Your task to perform on an android device: turn off location history Image 0: 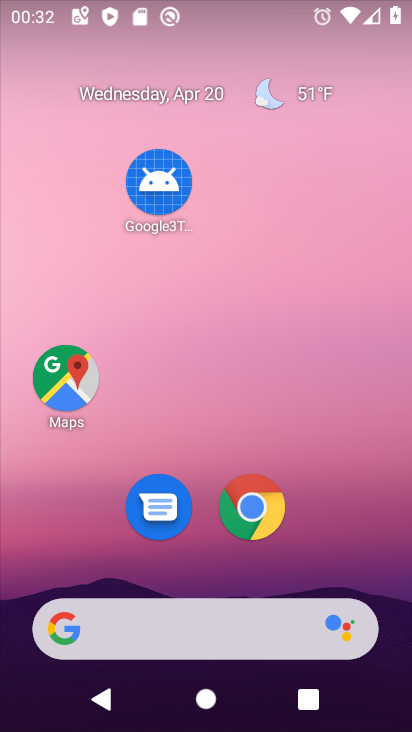
Step 0: drag from (201, 569) to (235, 7)
Your task to perform on an android device: turn off location history Image 1: 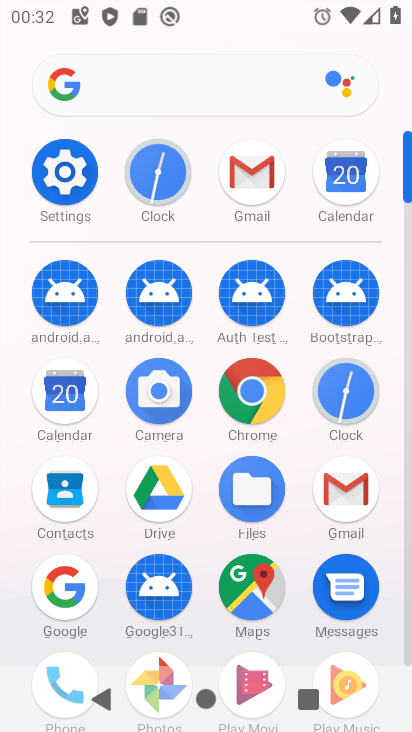
Step 1: click (246, 576)
Your task to perform on an android device: turn off location history Image 2: 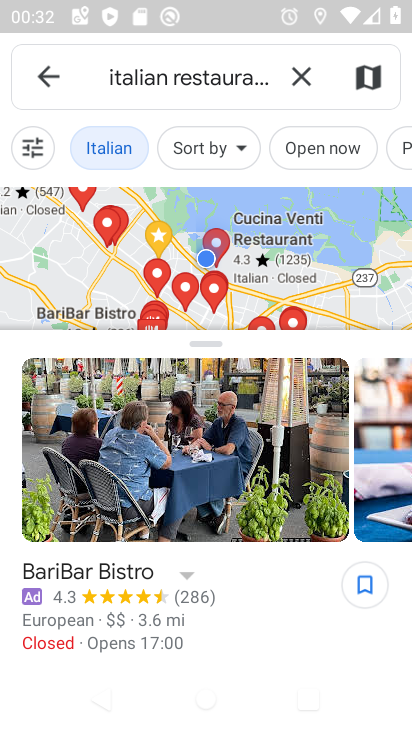
Step 2: click (39, 70)
Your task to perform on an android device: turn off location history Image 3: 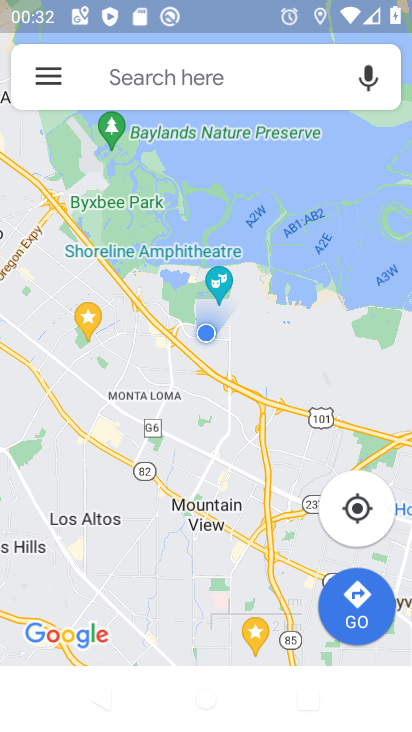
Step 3: click (43, 71)
Your task to perform on an android device: turn off location history Image 4: 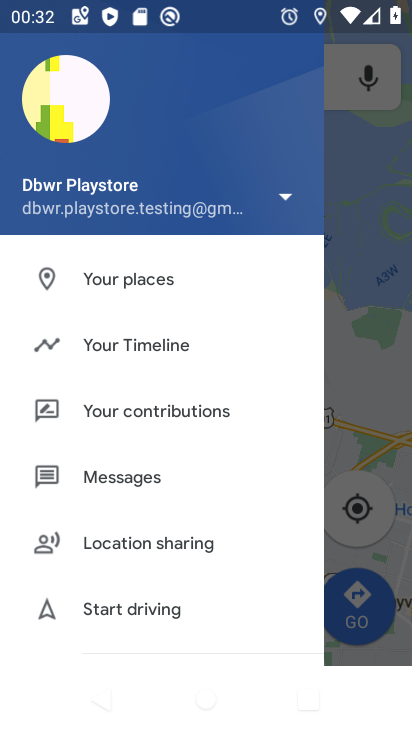
Step 4: drag from (160, 573) to (197, 173)
Your task to perform on an android device: turn off location history Image 5: 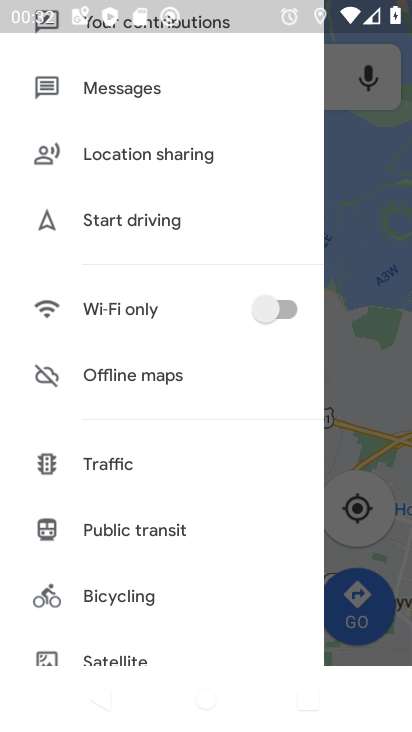
Step 5: drag from (199, 176) to (181, 647)
Your task to perform on an android device: turn off location history Image 6: 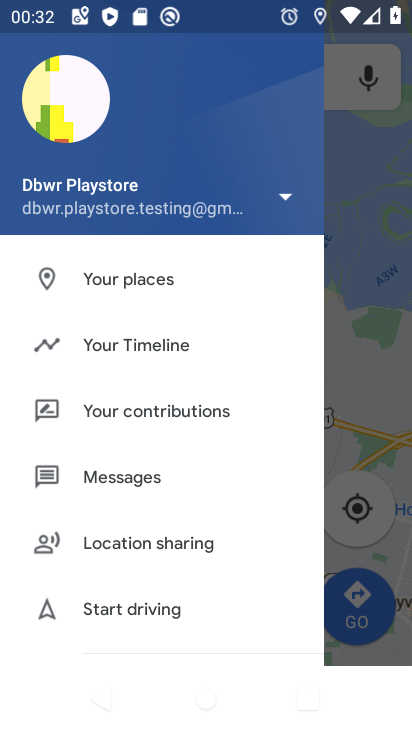
Step 6: click (129, 341)
Your task to perform on an android device: turn off location history Image 7: 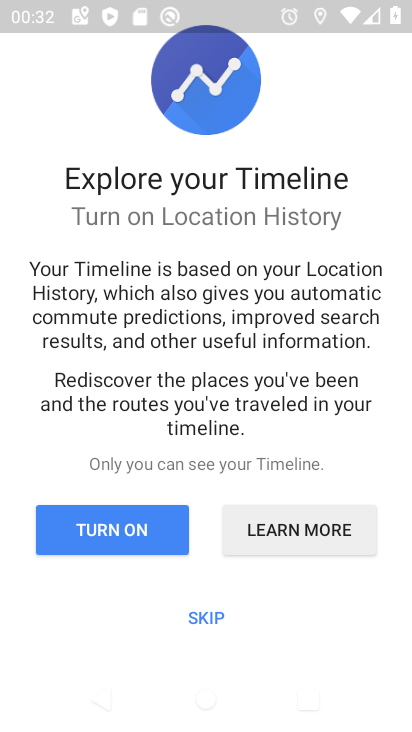
Step 7: click (147, 538)
Your task to perform on an android device: turn off location history Image 8: 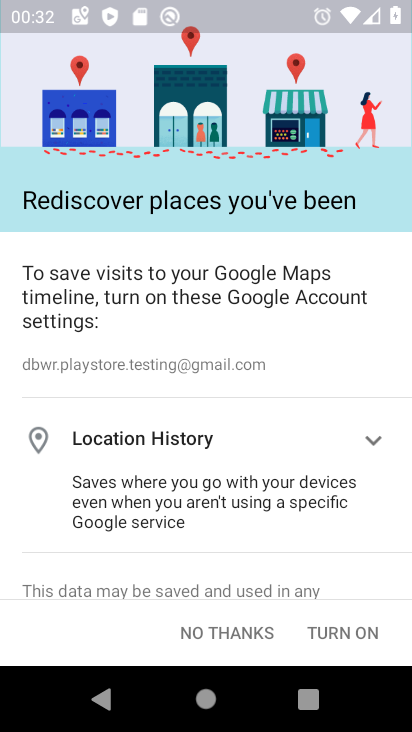
Step 8: click (330, 639)
Your task to perform on an android device: turn off location history Image 9: 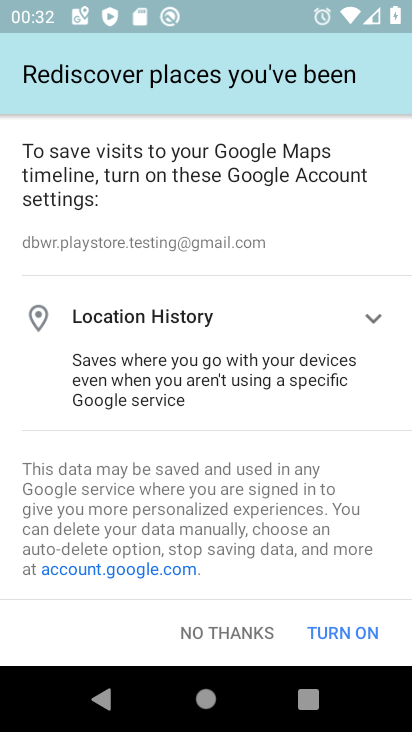
Step 9: click (331, 640)
Your task to perform on an android device: turn off location history Image 10: 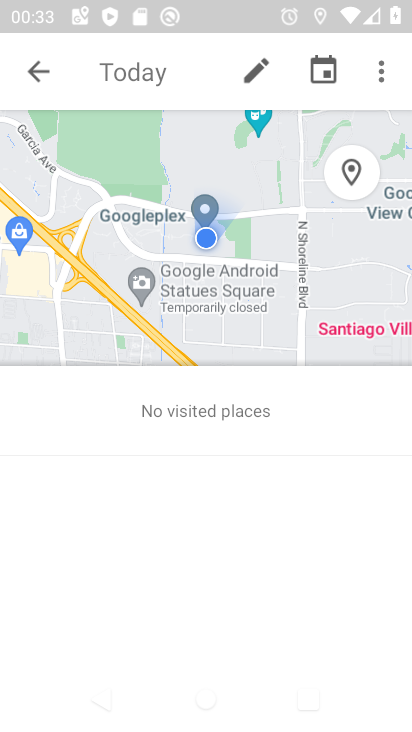
Step 10: click (377, 68)
Your task to perform on an android device: turn off location history Image 11: 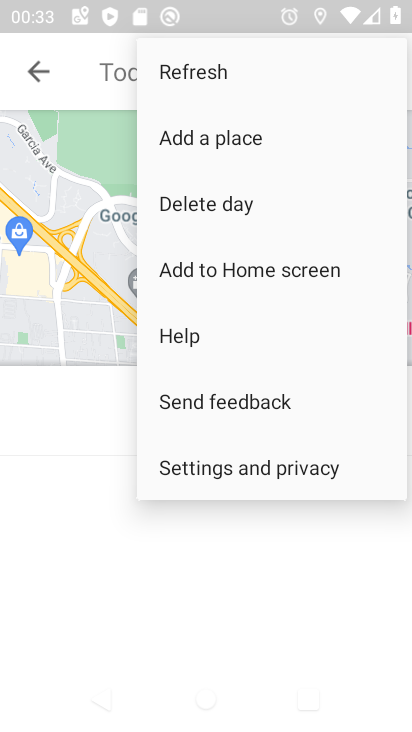
Step 11: click (283, 459)
Your task to perform on an android device: turn off location history Image 12: 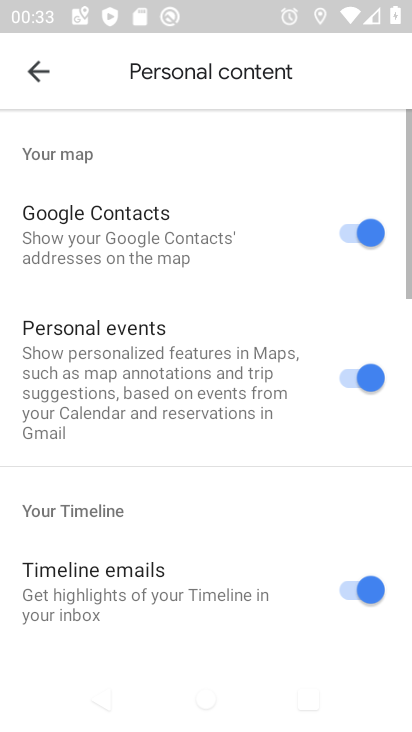
Step 12: drag from (231, 537) to (199, 222)
Your task to perform on an android device: turn off location history Image 13: 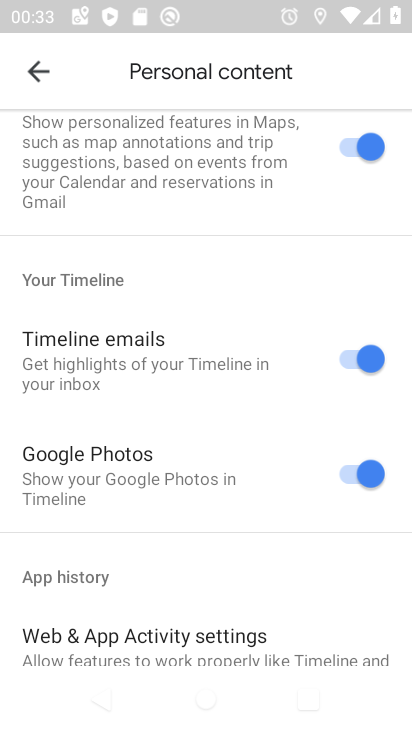
Step 13: drag from (174, 582) to (147, 213)
Your task to perform on an android device: turn off location history Image 14: 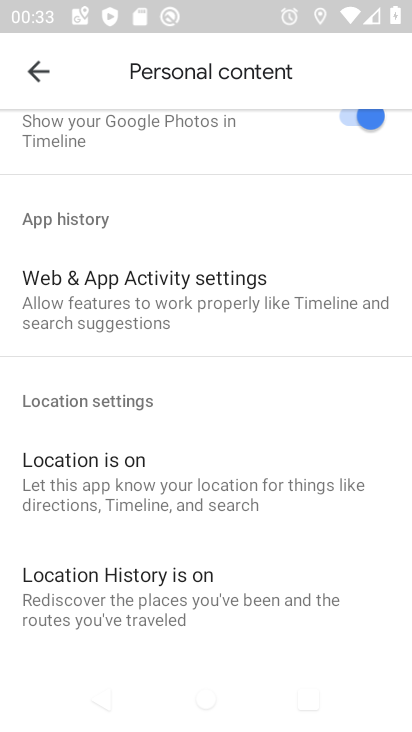
Step 14: click (108, 581)
Your task to perform on an android device: turn off location history Image 15: 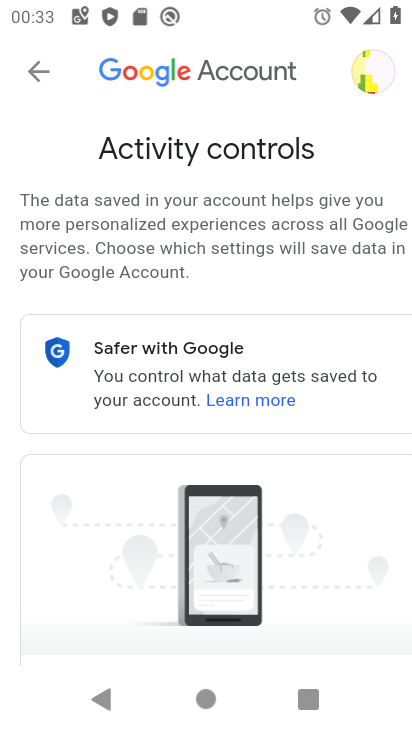
Step 15: task complete